Your task to perform on an android device: turn off sleep mode Image 0: 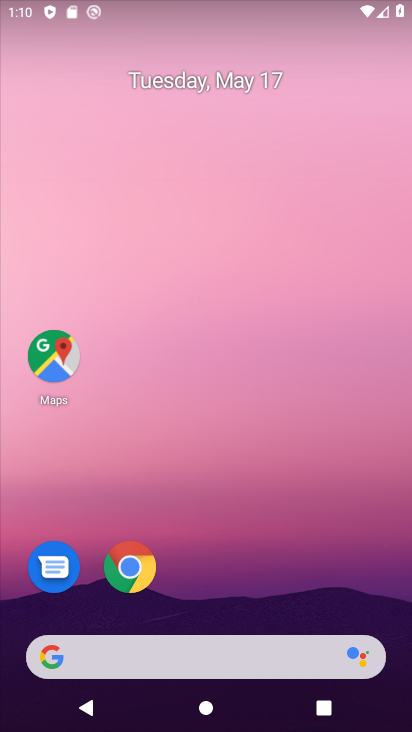
Step 0: drag from (388, 616) to (283, 138)
Your task to perform on an android device: turn off sleep mode Image 1: 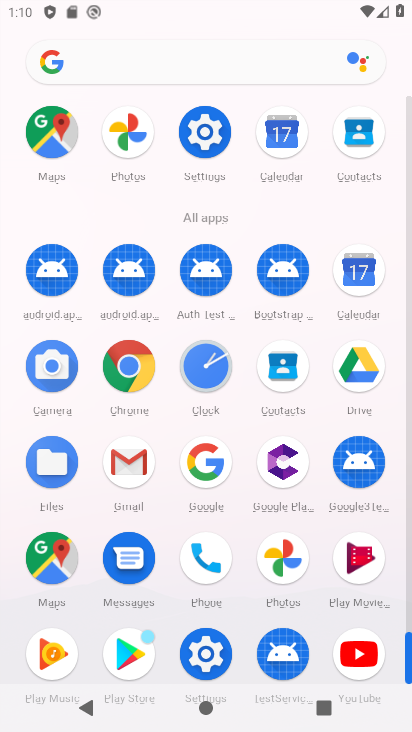
Step 1: click (210, 655)
Your task to perform on an android device: turn off sleep mode Image 2: 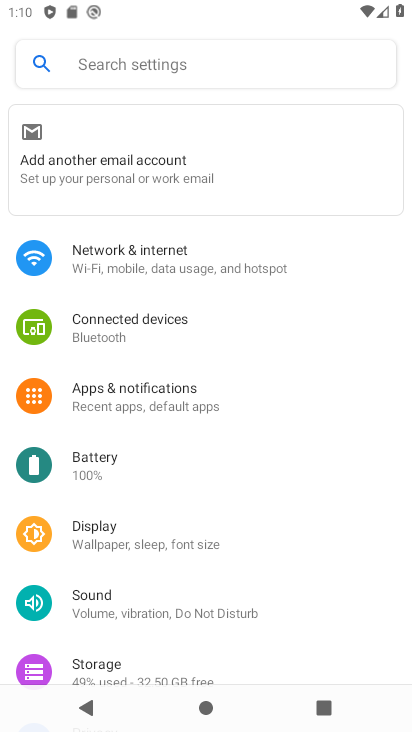
Step 2: click (81, 530)
Your task to perform on an android device: turn off sleep mode Image 3: 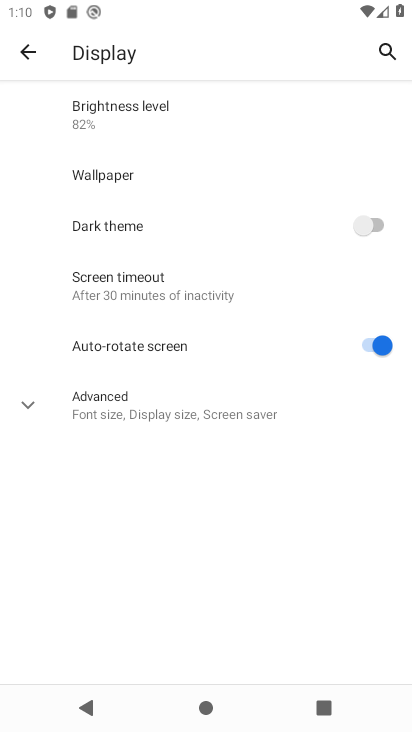
Step 3: click (24, 400)
Your task to perform on an android device: turn off sleep mode Image 4: 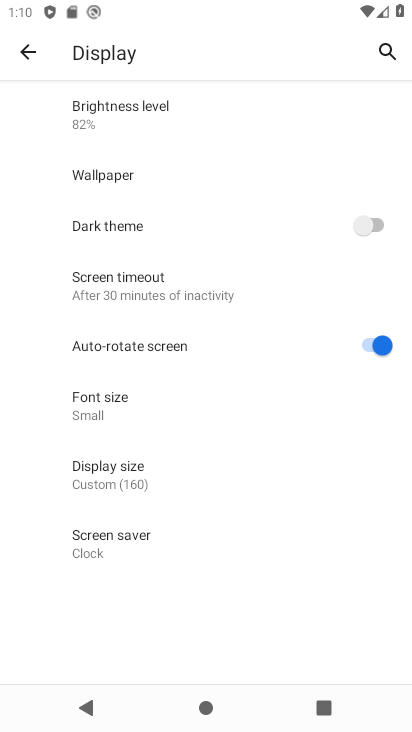
Step 4: task complete